Your task to perform on an android device: Turn on the flashlight Image 0: 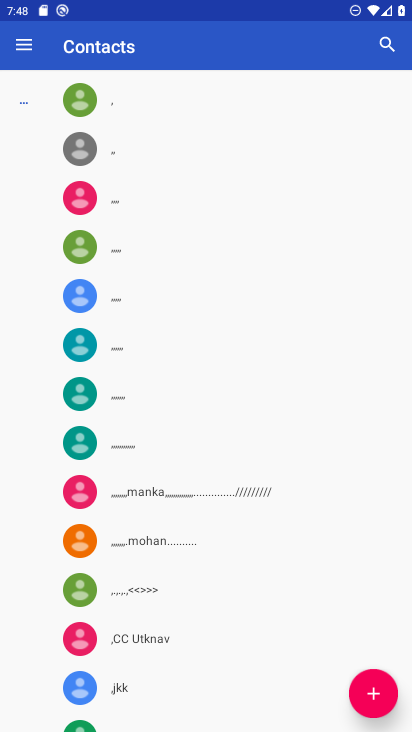
Step 0: press home button
Your task to perform on an android device: Turn on the flashlight Image 1: 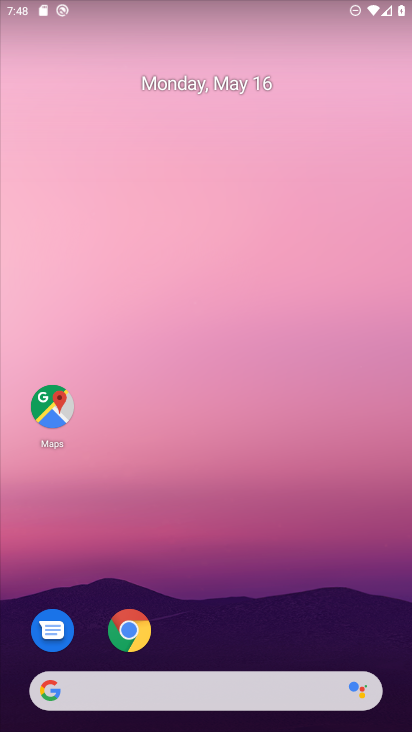
Step 1: drag from (295, 615) to (246, 213)
Your task to perform on an android device: Turn on the flashlight Image 2: 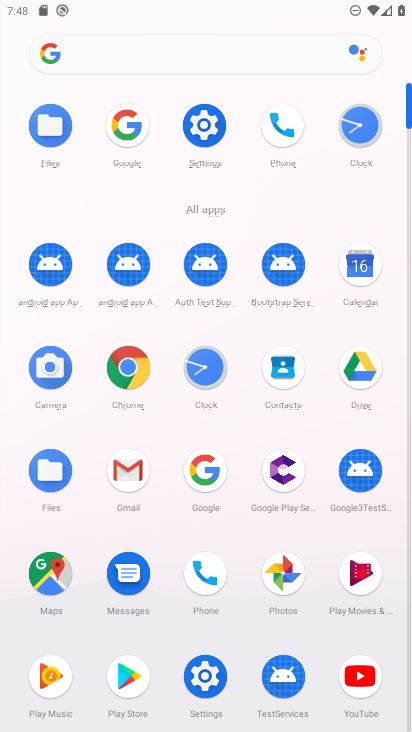
Step 2: click (193, 122)
Your task to perform on an android device: Turn on the flashlight Image 3: 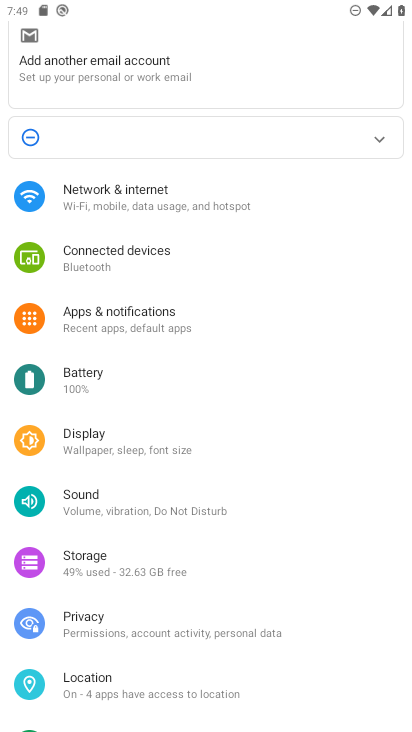
Step 3: drag from (230, 583) to (147, 187)
Your task to perform on an android device: Turn on the flashlight Image 4: 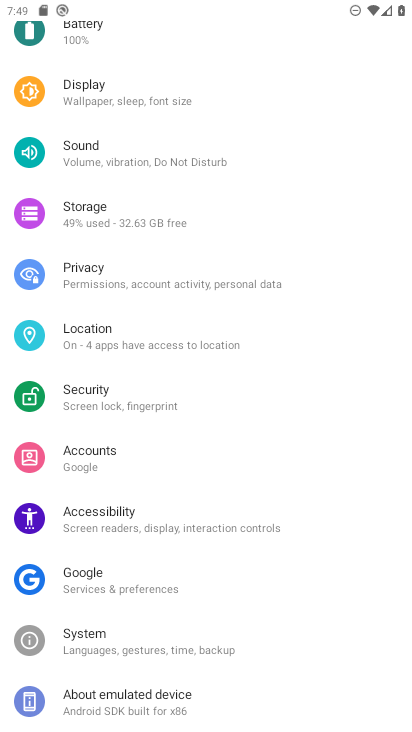
Step 4: click (152, 97)
Your task to perform on an android device: Turn on the flashlight Image 5: 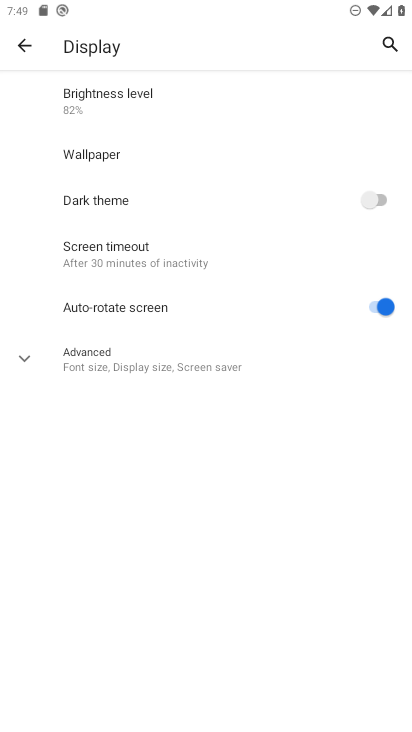
Step 5: click (62, 335)
Your task to perform on an android device: Turn on the flashlight Image 6: 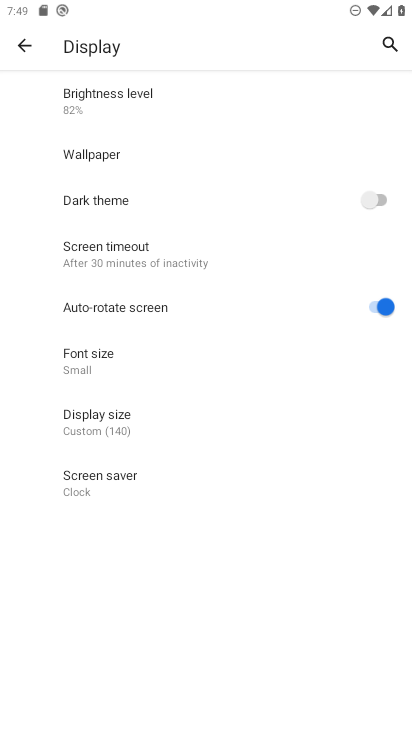
Step 6: task complete